Your task to perform on an android device: set default search engine in the chrome app Image 0: 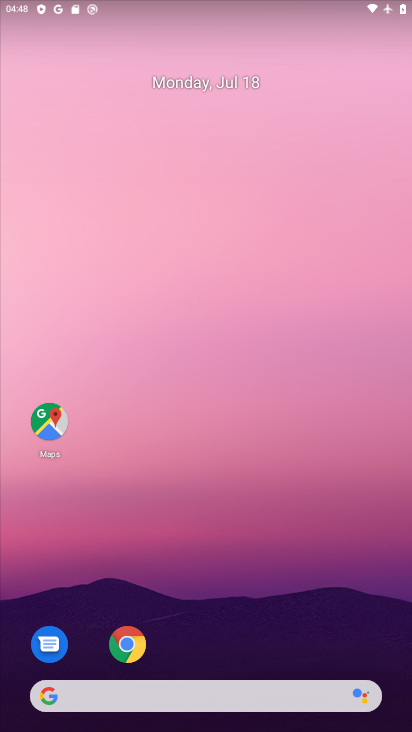
Step 0: press home button
Your task to perform on an android device: set default search engine in the chrome app Image 1: 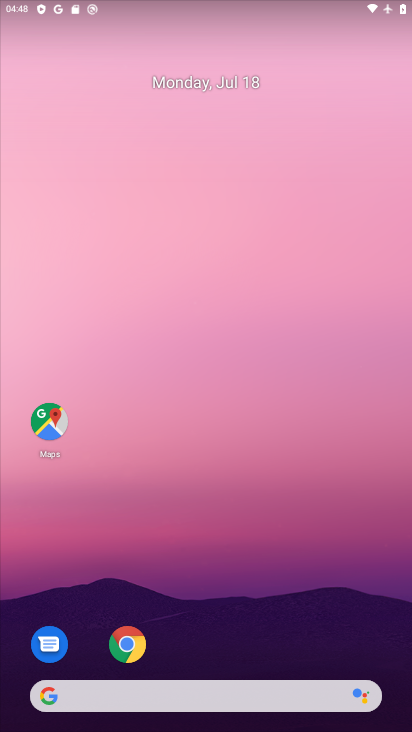
Step 1: drag from (194, 631) to (291, 101)
Your task to perform on an android device: set default search engine in the chrome app Image 2: 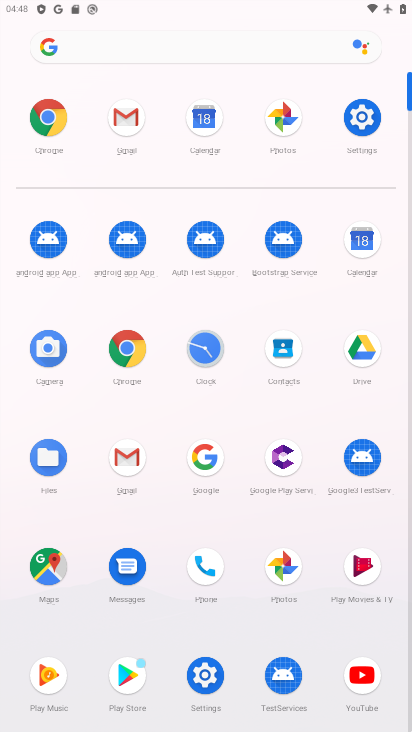
Step 2: click (49, 122)
Your task to perform on an android device: set default search engine in the chrome app Image 3: 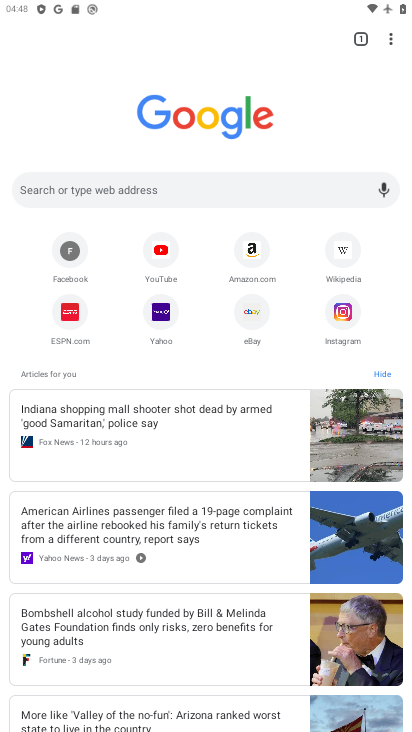
Step 3: drag from (395, 35) to (250, 326)
Your task to perform on an android device: set default search engine in the chrome app Image 4: 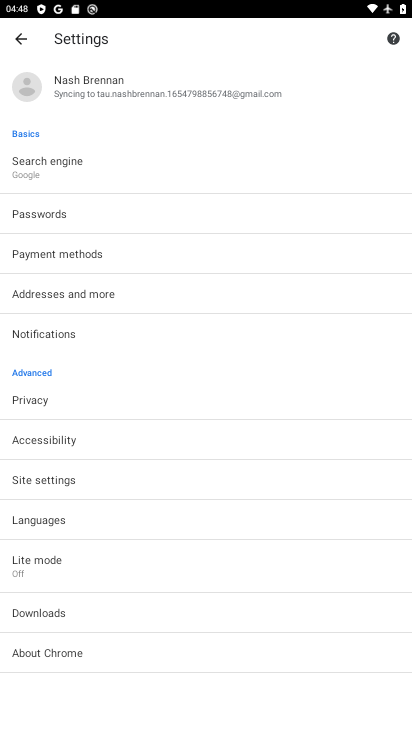
Step 4: click (46, 153)
Your task to perform on an android device: set default search engine in the chrome app Image 5: 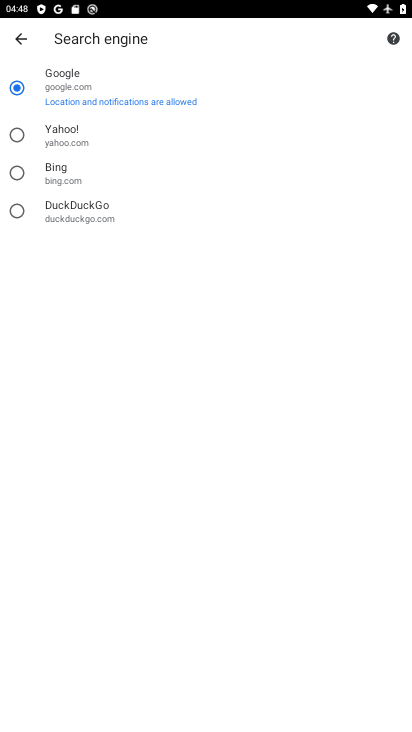
Step 5: click (9, 134)
Your task to perform on an android device: set default search engine in the chrome app Image 6: 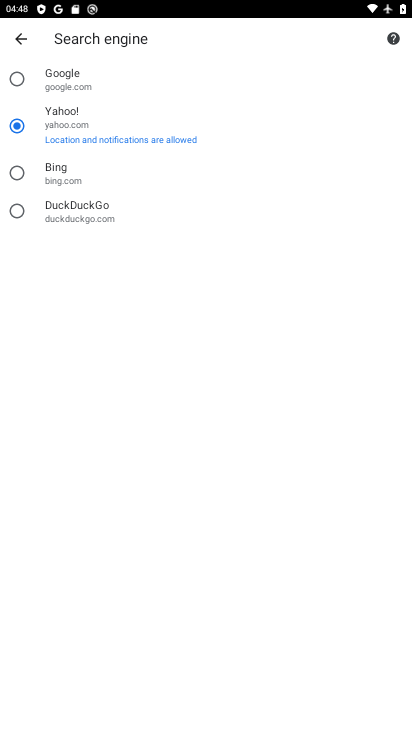
Step 6: task complete